Your task to perform on an android device: toggle javascript in the chrome app Image 0: 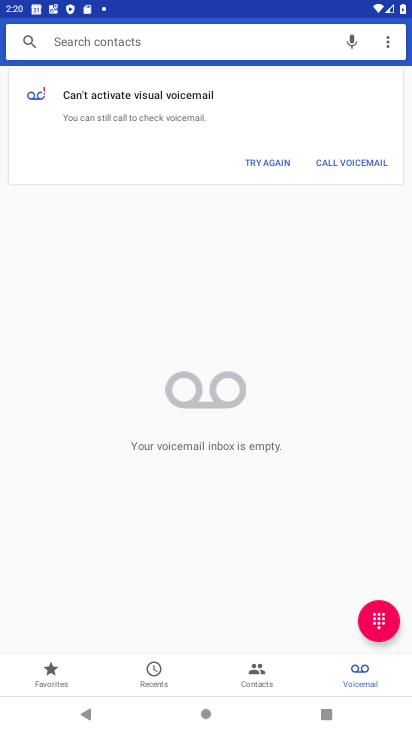
Step 0: press home button
Your task to perform on an android device: toggle javascript in the chrome app Image 1: 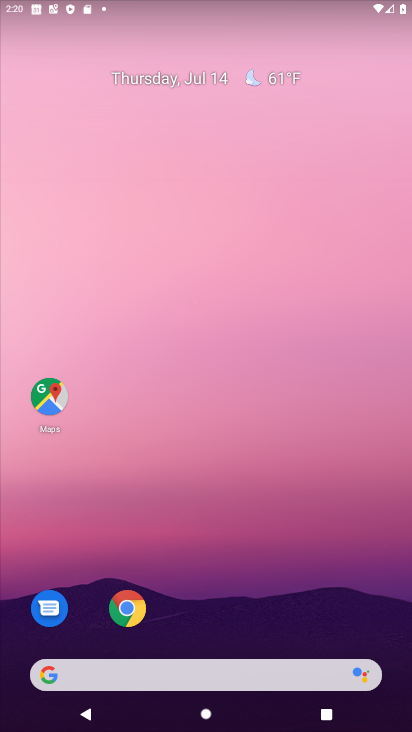
Step 1: click (129, 611)
Your task to perform on an android device: toggle javascript in the chrome app Image 2: 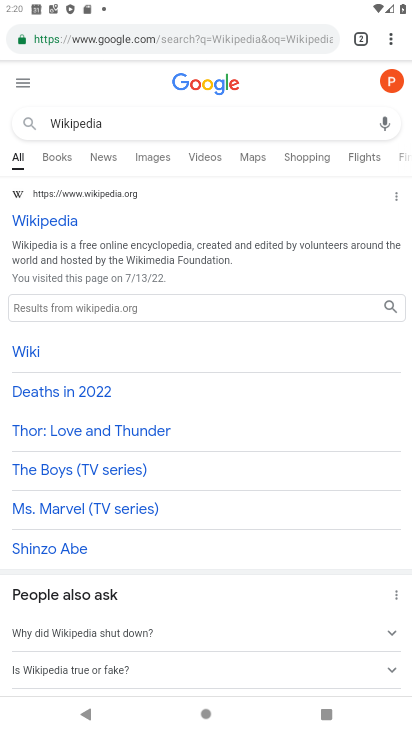
Step 2: click (388, 35)
Your task to perform on an android device: toggle javascript in the chrome app Image 3: 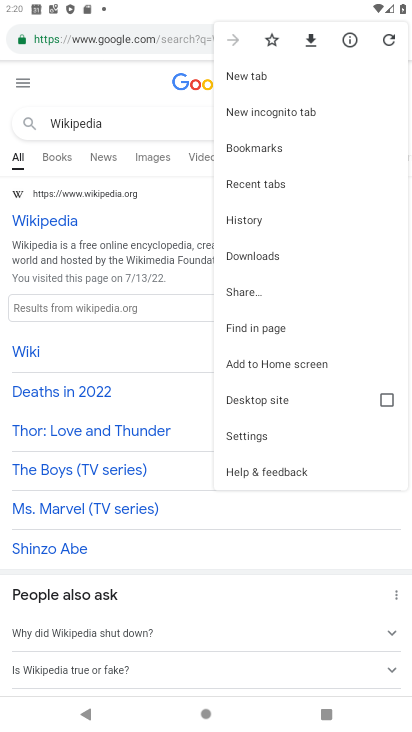
Step 3: click (254, 435)
Your task to perform on an android device: toggle javascript in the chrome app Image 4: 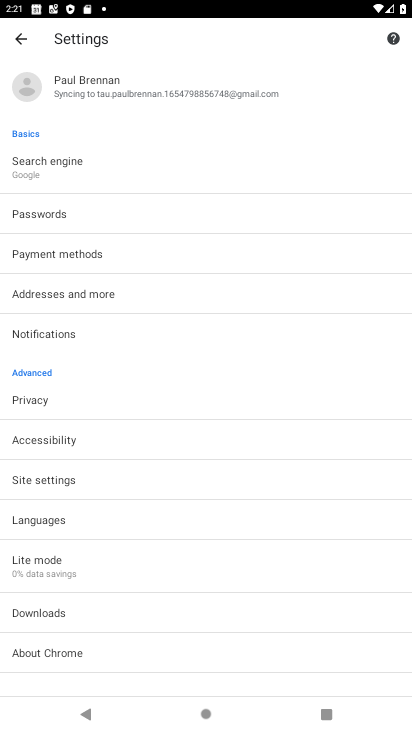
Step 4: click (61, 479)
Your task to perform on an android device: toggle javascript in the chrome app Image 5: 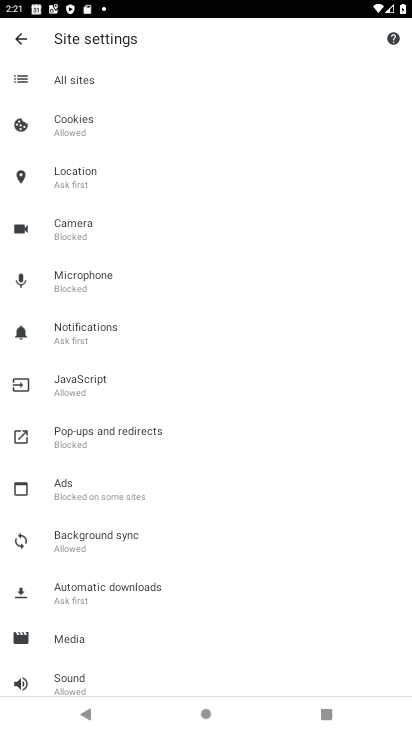
Step 5: click (84, 388)
Your task to perform on an android device: toggle javascript in the chrome app Image 6: 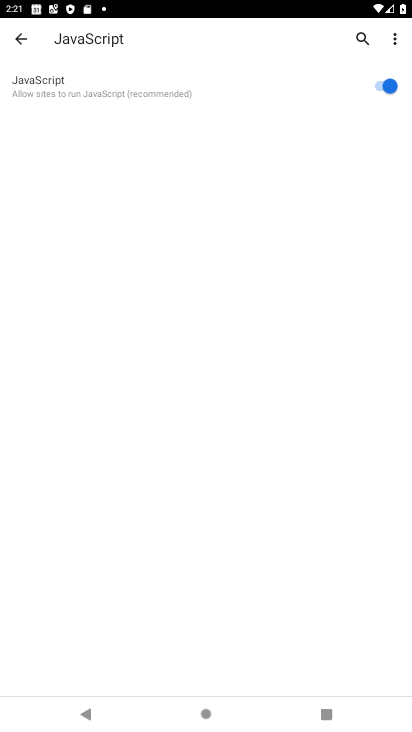
Step 6: click (383, 83)
Your task to perform on an android device: toggle javascript in the chrome app Image 7: 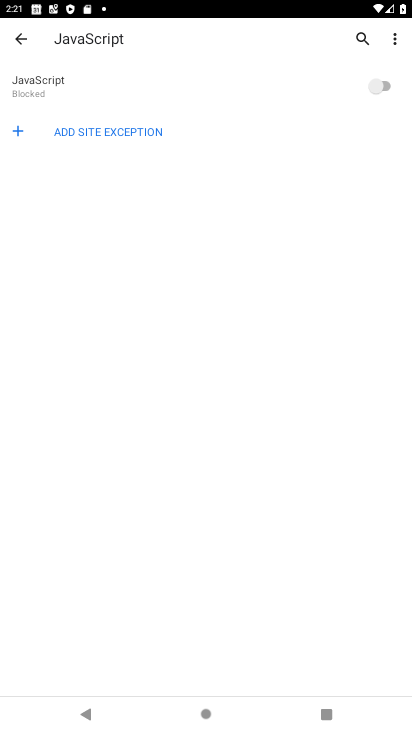
Step 7: task complete